Your task to perform on an android device: add a contact in the contacts app Image 0: 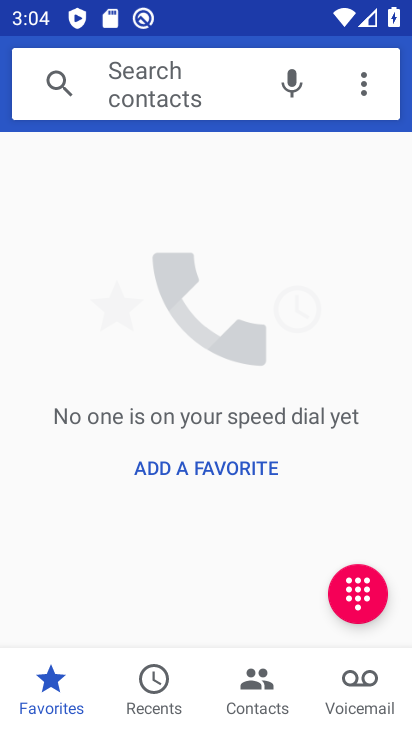
Step 0: press back button
Your task to perform on an android device: add a contact in the contacts app Image 1: 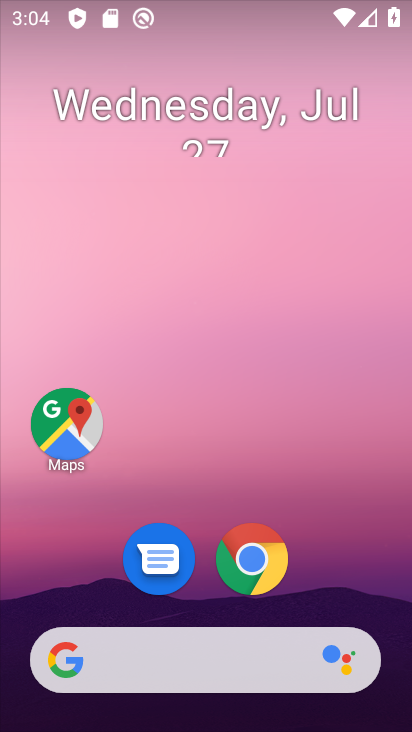
Step 1: drag from (64, 573) to (385, 40)
Your task to perform on an android device: add a contact in the contacts app Image 2: 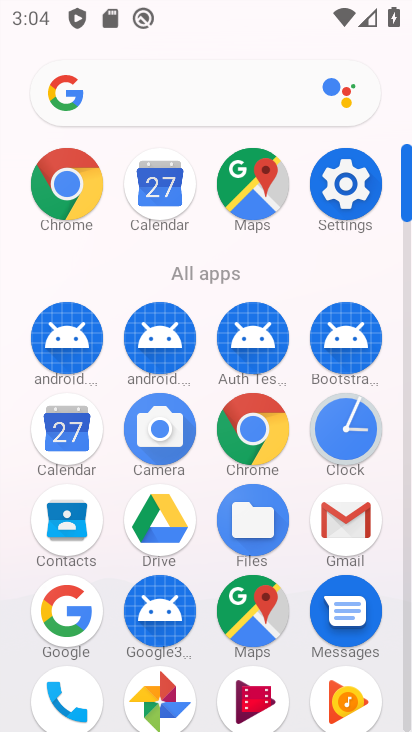
Step 2: click (55, 519)
Your task to perform on an android device: add a contact in the contacts app Image 3: 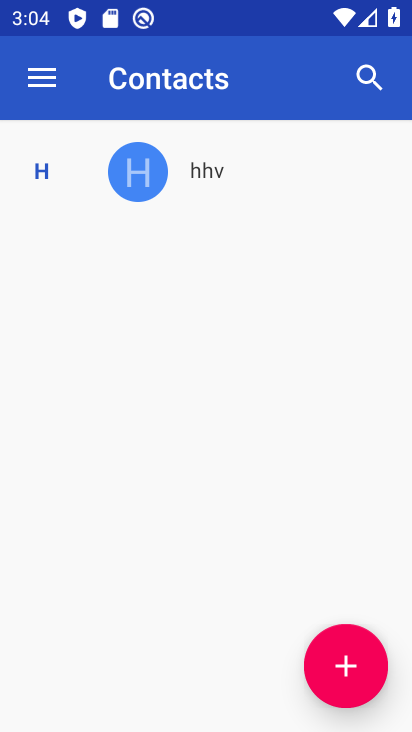
Step 3: click (349, 666)
Your task to perform on an android device: add a contact in the contacts app Image 4: 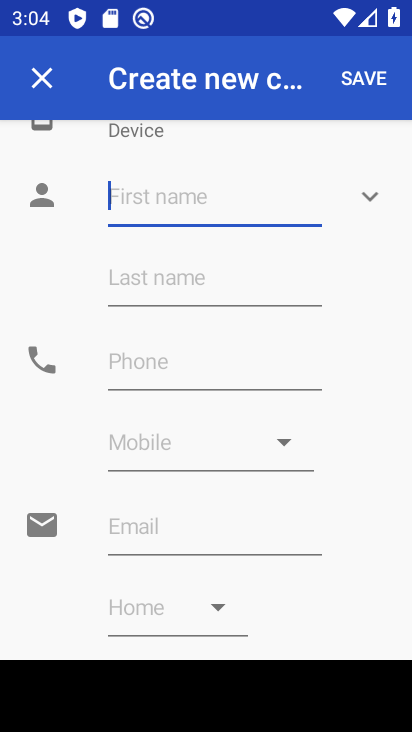
Step 4: click (111, 194)
Your task to perform on an android device: add a contact in the contacts app Image 5: 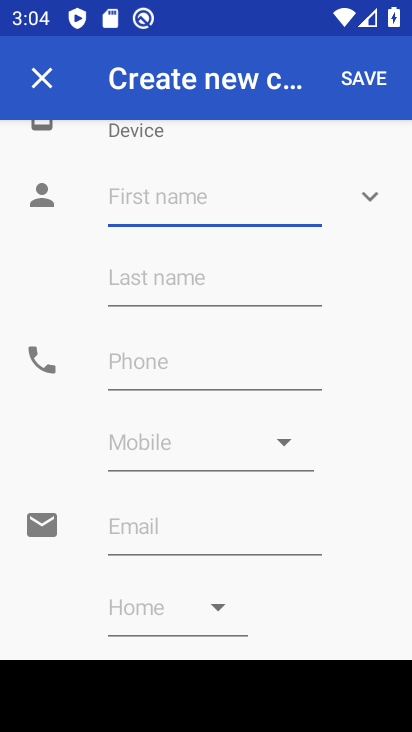
Step 5: type "hvhv"
Your task to perform on an android device: add a contact in the contacts app Image 6: 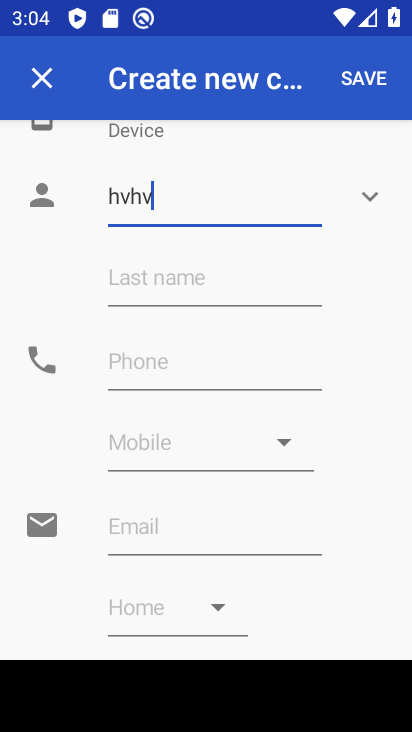
Step 6: click (199, 356)
Your task to perform on an android device: add a contact in the contacts app Image 7: 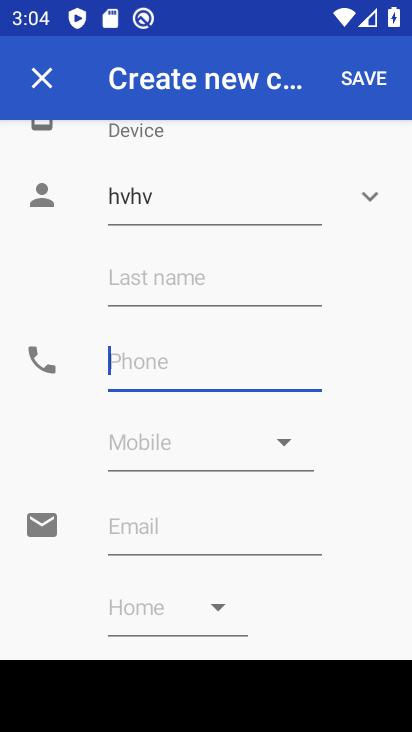
Step 7: type "87878"
Your task to perform on an android device: add a contact in the contacts app Image 8: 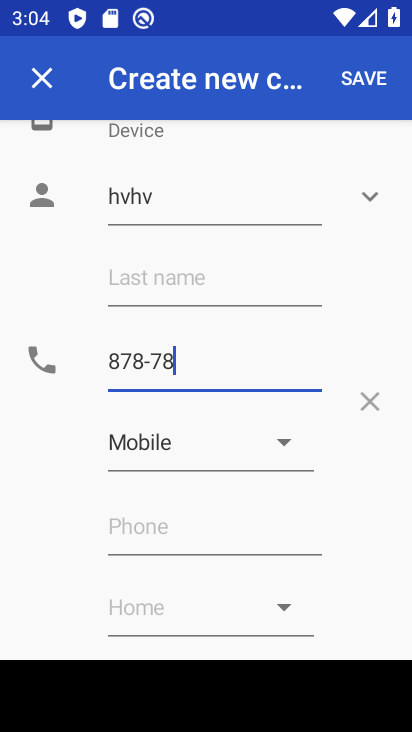
Step 8: click (355, 79)
Your task to perform on an android device: add a contact in the contacts app Image 9: 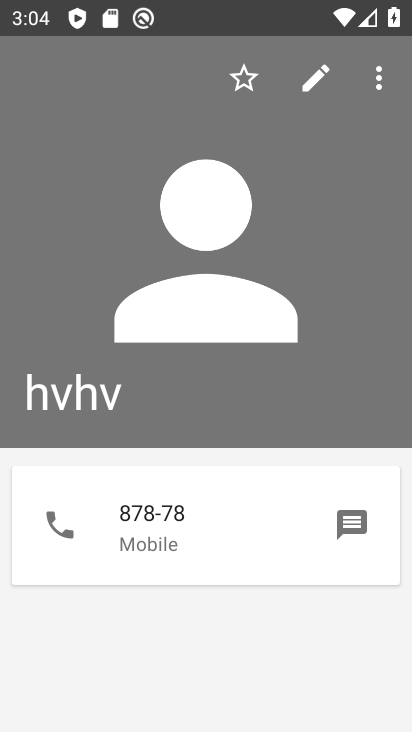
Step 9: task complete